Your task to perform on an android device: Open Maps and search for coffee Image 0: 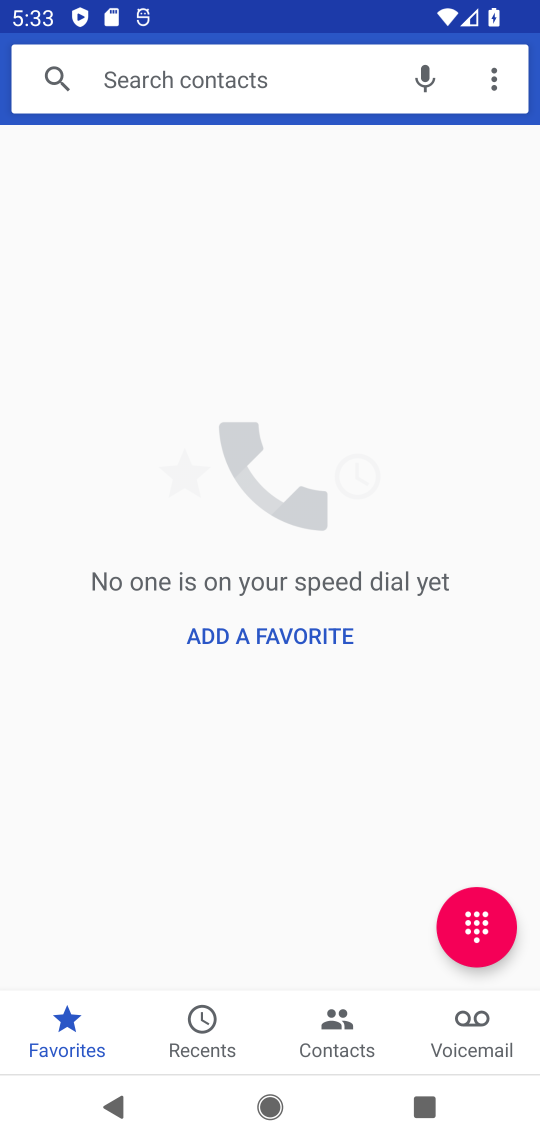
Step 0: press home button
Your task to perform on an android device: Open Maps and search for coffee Image 1: 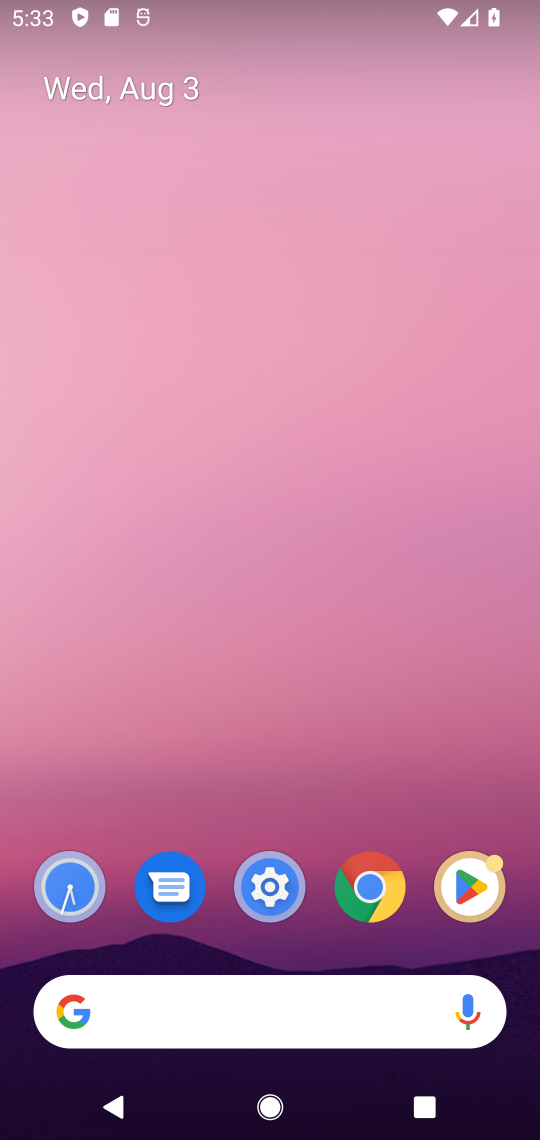
Step 1: drag from (374, 947) to (267, 27)
Your task to perform on an android device: Open Maps and search for coffee Image 2: 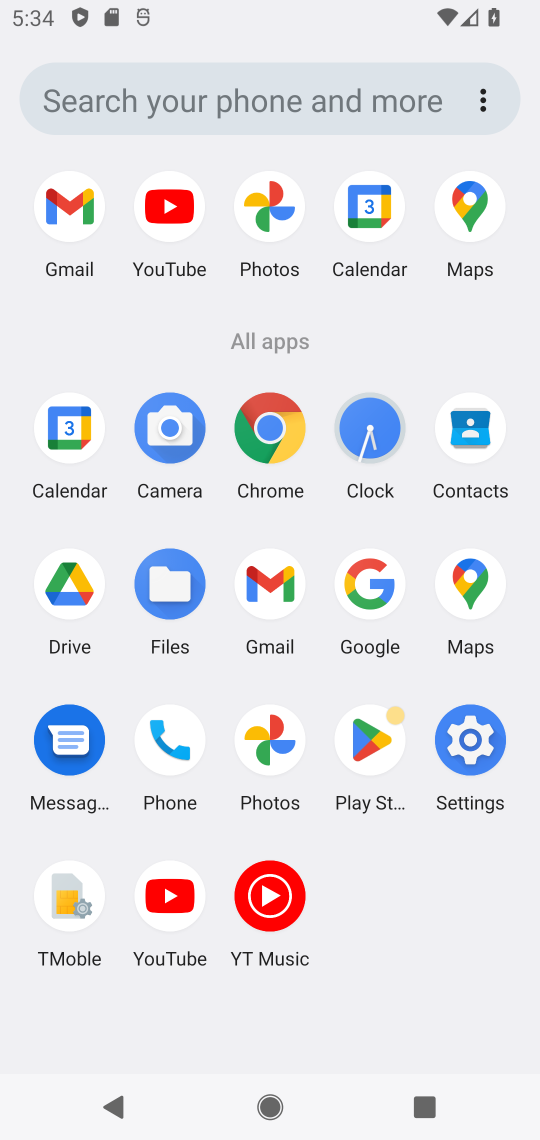
Step 2: click (468, 598)
Your task to perform on an android device: Open Maps and search for coffee Image 3: 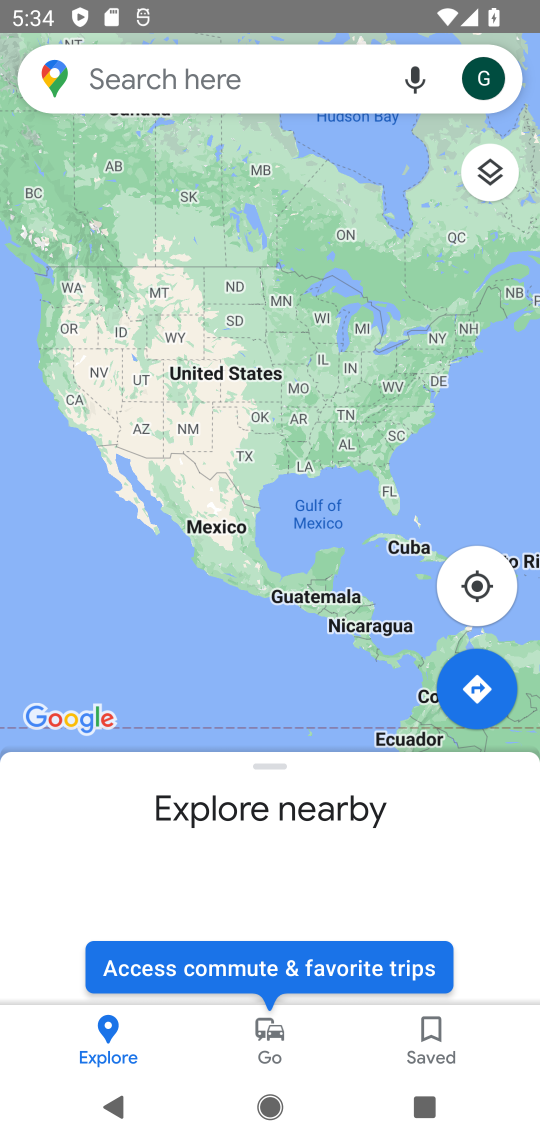
Step 3: click (265, 71)
Your task to perform on an android device: Open Maps and search for coffee Image 4: 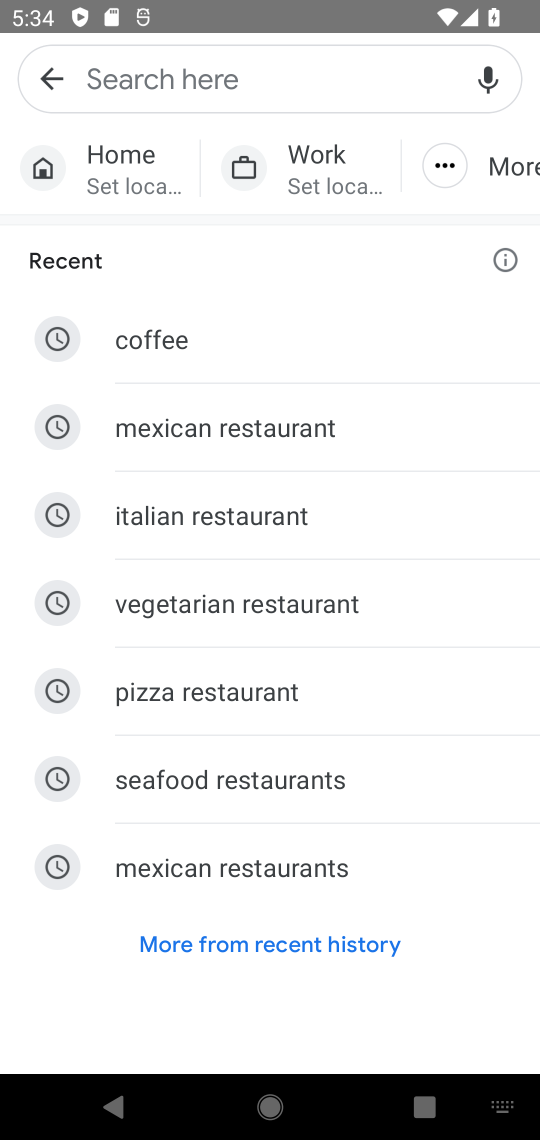
Step 4: click (53, 355)
Your task to perform on an android device: Open Maps and search for coffee Image 5: 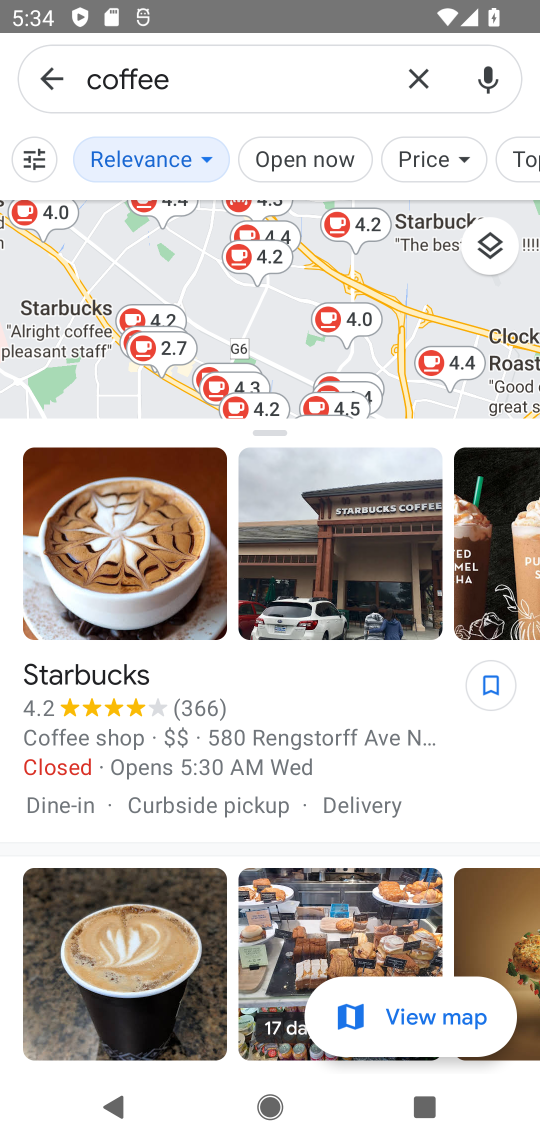
Step 5: task complete